Your task to perform on an android device: turn off wifi Image 0: 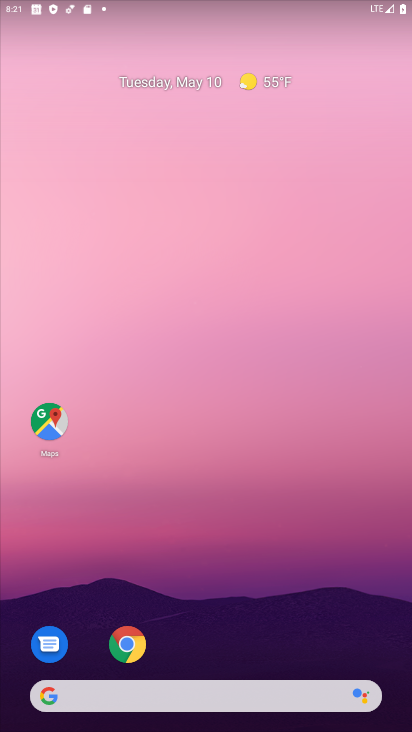
Step 0: drag from (259, 634) to (252, 139)
Your task to perform on an android device: turn off wifi Image 1: 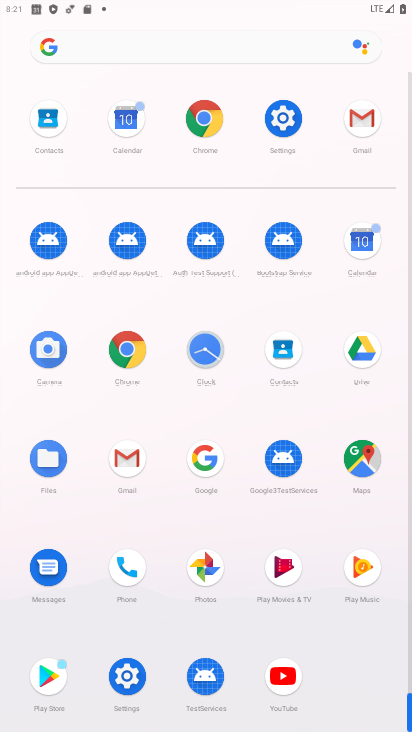
Step 1: click (278, 150)
Your task to perform on an android device: turn off wifi Image 2: 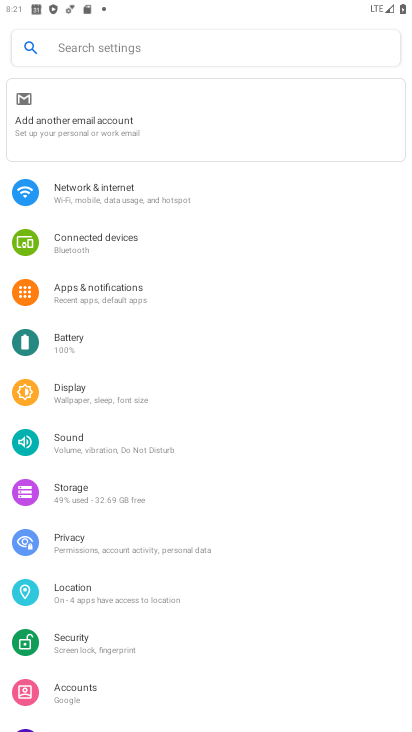
Step 2: drag from (263, 295) to (264, 474)
Your task to perform on an android device: turn off wifi Image 3: 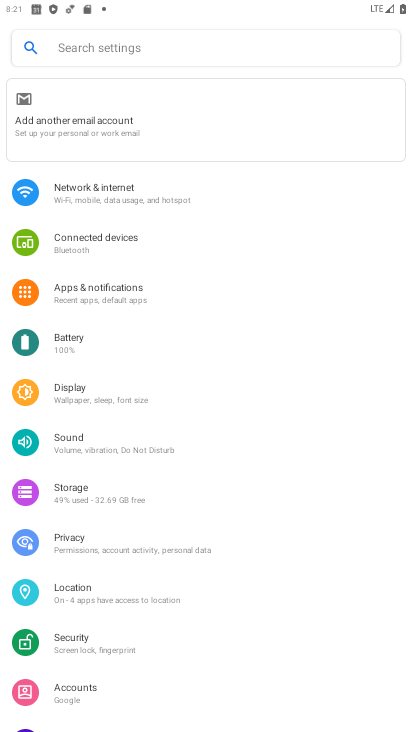
Step 3: click (267, 202)
Your task to perform on an android device: turn off wifi Image 4: 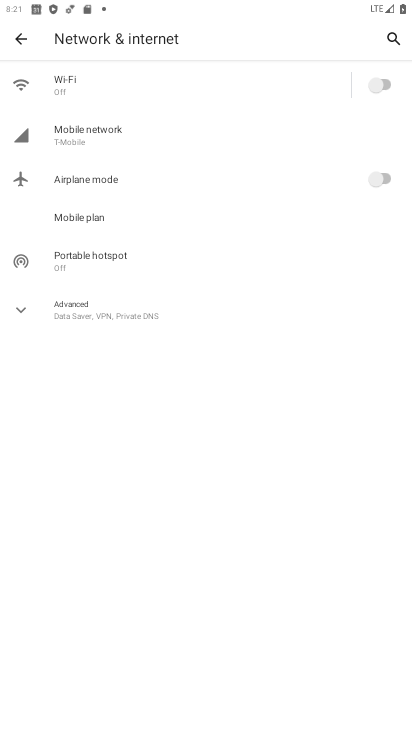
Step 4: task complete